Your task to perform on an android device: Open settings on Google Maps Image 0: 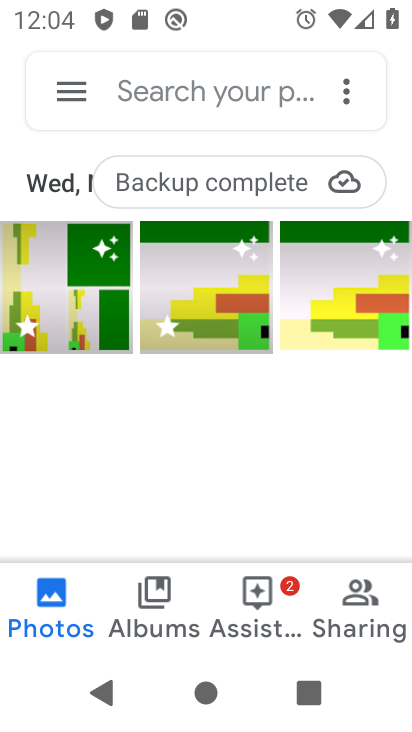
Step 0: press home button
Your task to perform on an android device: Open settings on Google Maps Image 1: 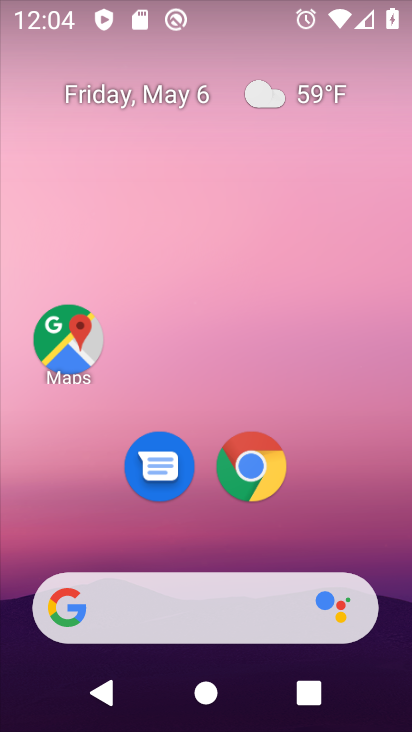
Step 1: click (59, 338)
Your task to perform on an android device: Open settings on Google Maps Image 2: 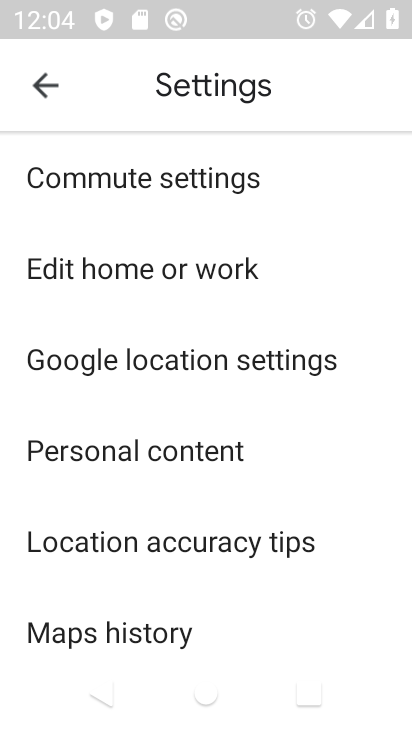
Step 2: click (40, 86)
Your task to perform on an android device: Open settings on Google Maps Image 3: 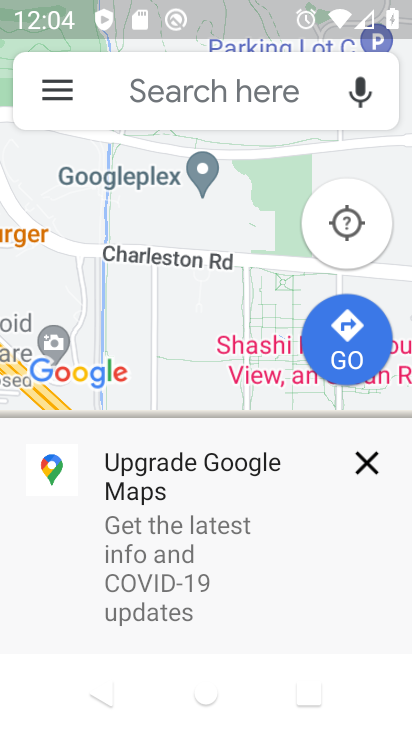
Step 3: click (55, 95)
Your task to perform on an android device: Open settings on Google Maps Image 4: 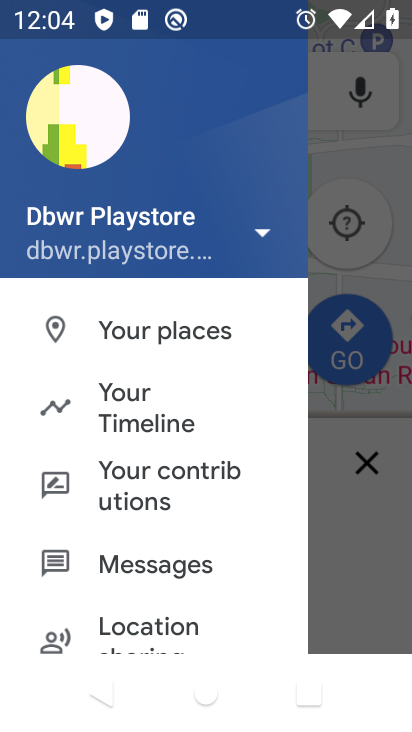
Step 4: drag from (127, 645) to (234, 154)
Your task to perform on an android device: Open settings on Google Maps Image 5: 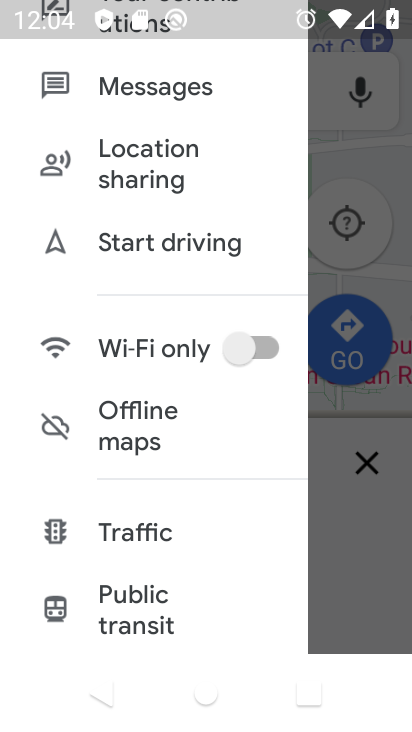
Step 5: drag from (153, 624) to (228, 232)
Your task to perform on an android device: Open settings on Google Maps Image 6: 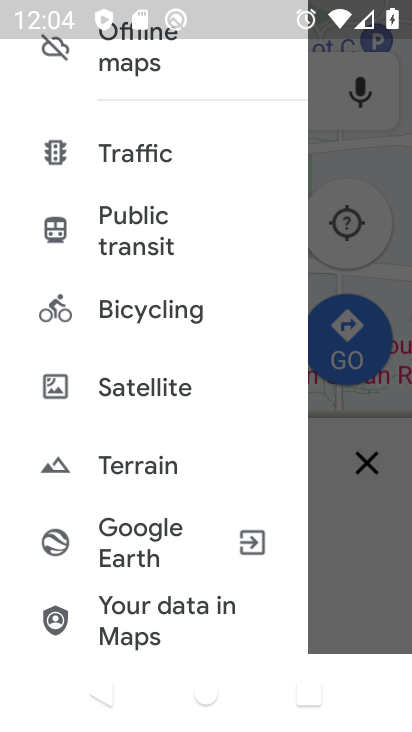
Step 6: drag from (164, 576) to (225, 228)
Your task to perform on an android device: Open settings on Google Maps Image 7: 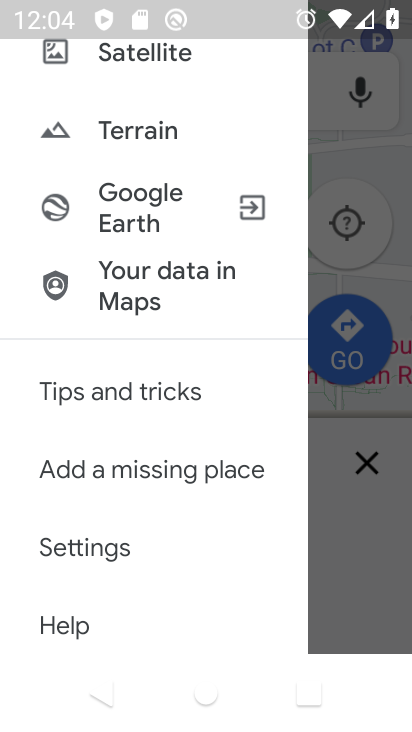
Step 7: click (64, 553)
Your task to perform on an android device: Open settings on Google Maps Image 8: 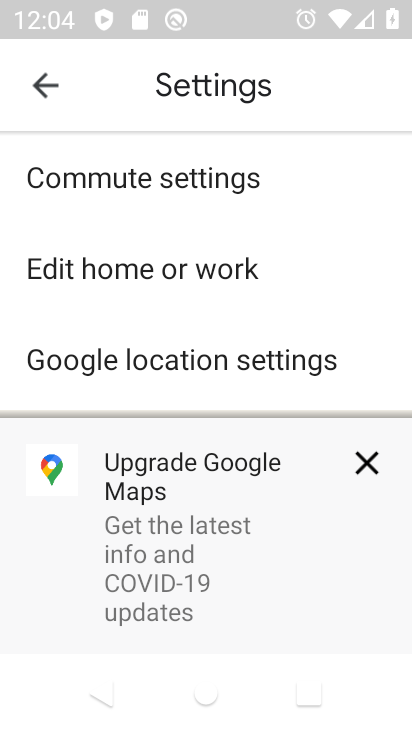
Step 8: task complete